Your task to perform on an android device: check battery use Image 0: 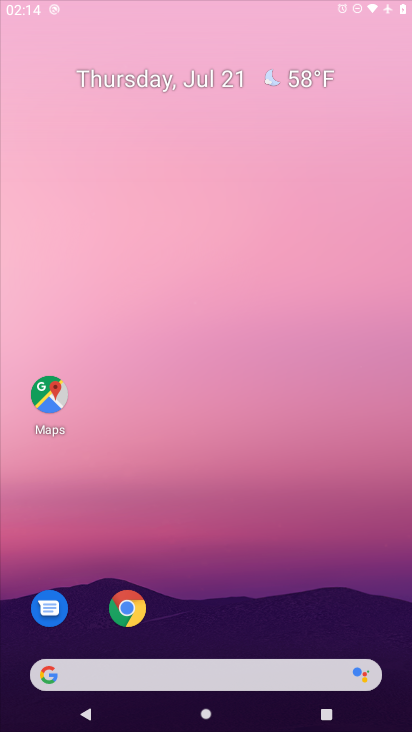
Step 0: press home button
Your task to perform on an android device: check battery use Image 1: 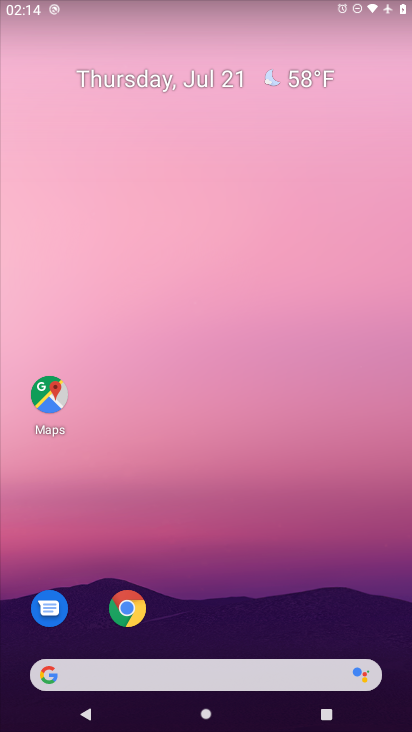
Step 1: press home button
Your task to perform on an android device: check battery use Image 2: 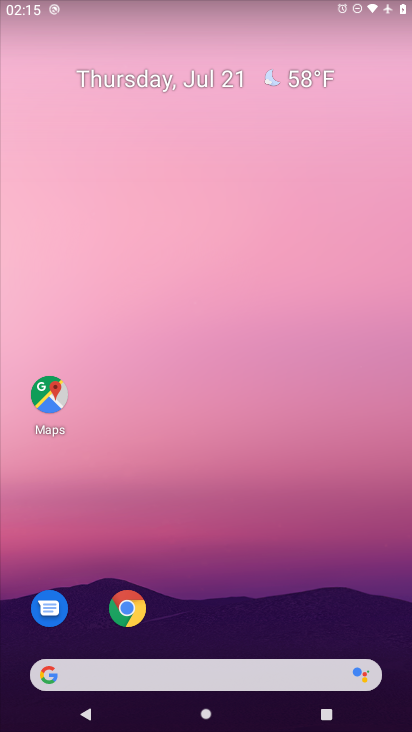
Step 2: drag from (253, 620) to (289, 106)
Your task to perform on an android device: check battery use Image 3: 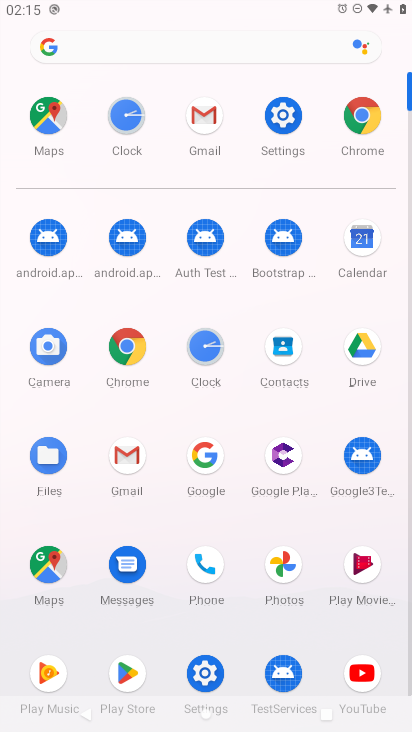
Step 3: click (275, 124)
Your task to perform on an android device: check battery use Image 4: 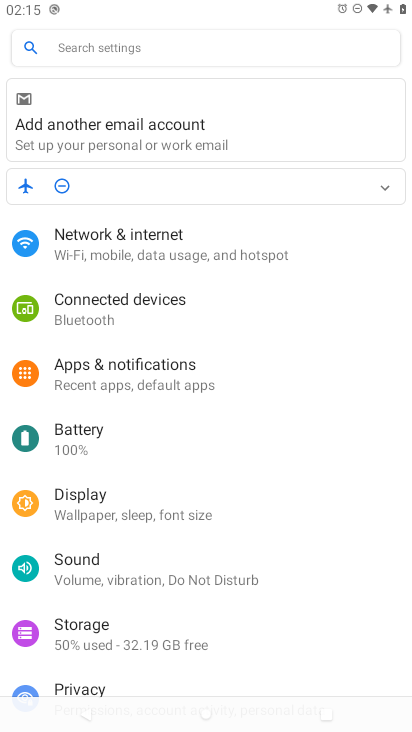
Step 4: click (76, 444)
Your task to perform on an android device: check battery use Image 5: 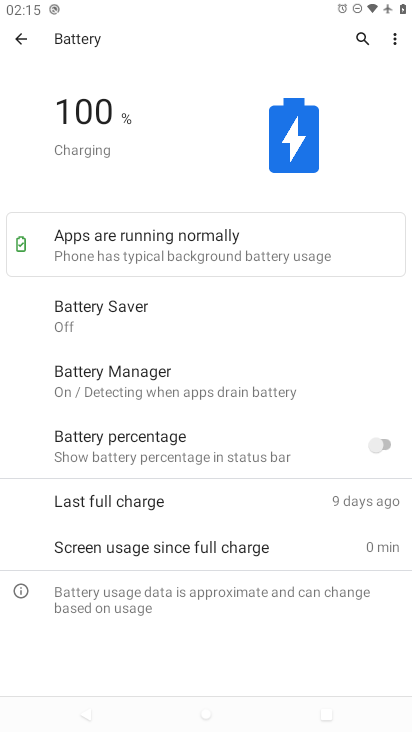
Step 5: click (397, 34)
Your task to perform on an android device: check battery use Image 6: 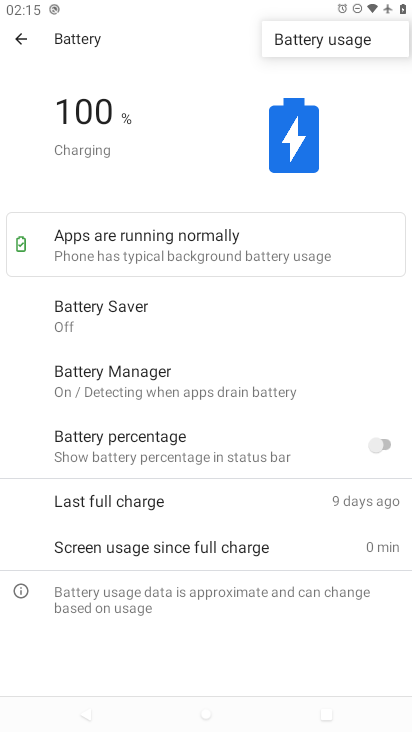
Step 6: click (324, 34)
Your task to perform on an android device: check battery use Image 7: 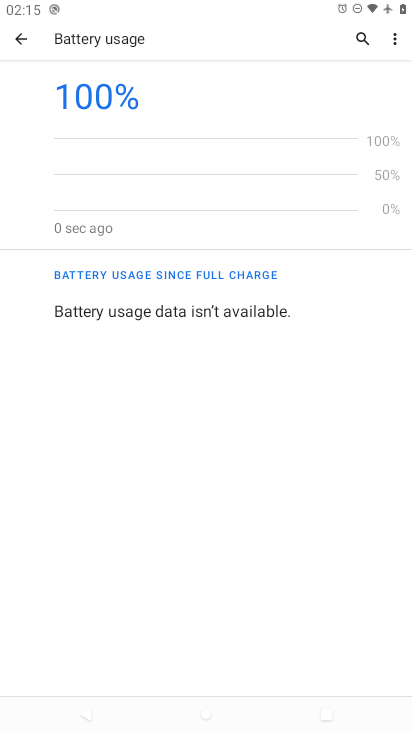
Step 7: task complete